Your task to perform on an android device: Empty the shopping cart on bestbuy.com. Search for "razer deathadder" on bestbuy.com, select the first entry, add it to the cart, then select checkout. Image 0: 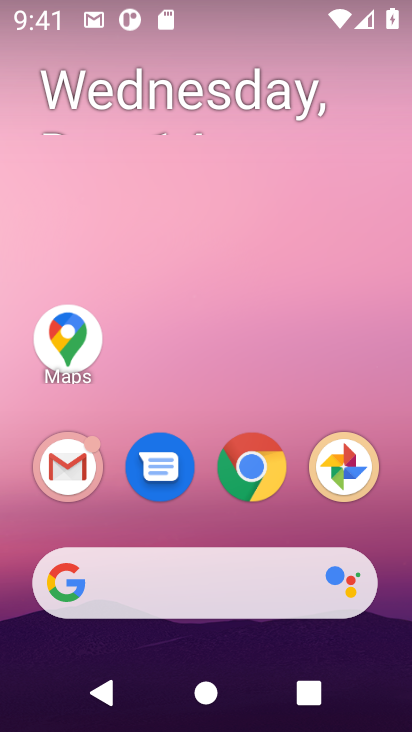
Step 0: click (191, 566)
Your task to perform on an android device: Empty the shopping cart on bestbuy.com. Search for "razer deathadder" on bestbuy.com, select the first entry, add it to the cart, then select checkout. Image 1: 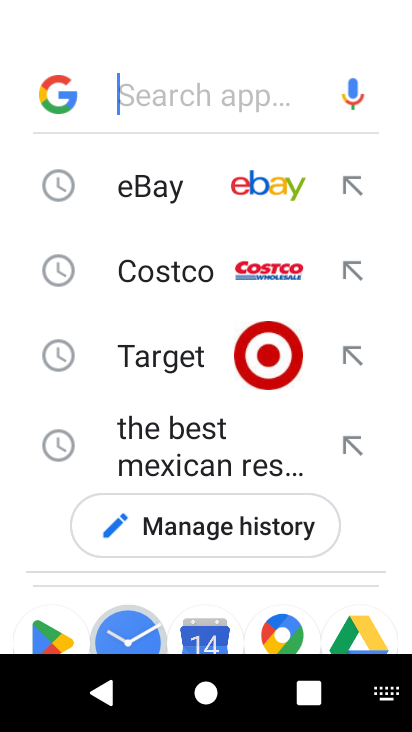
Step 1: type "bestbuy"
Your task to perform on an android device: Empty the shopping cart on bestbuy.com. Search for "razer deathadder" on bestbuy.com, select the first entry, add it to the cart, then select checkout. Image 2: 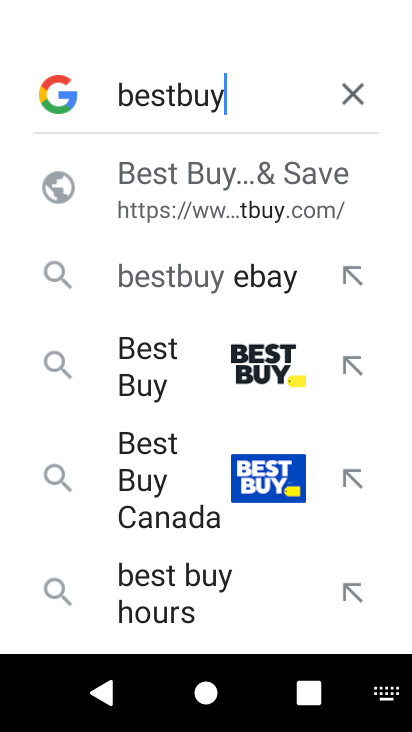
Step 2: click (144, 204)
Your task to perform on an android device: Empty the shopping cart on bestbuy.com. Search for "razer deathadder" on bestbuy.com, select the first entry, add it to the cart, then select checkout. Image 3: 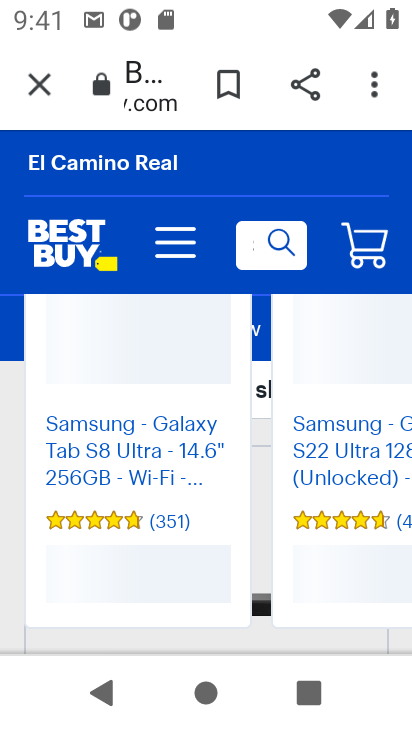
Step 3: click (254, 246)
Your task to perform on an android device: Empty the shopping cart on bestbuy.com. Search for "razer deathadder" on bestbuy.com, select the first entry, add it to the cart, then select checkout. Image 4: 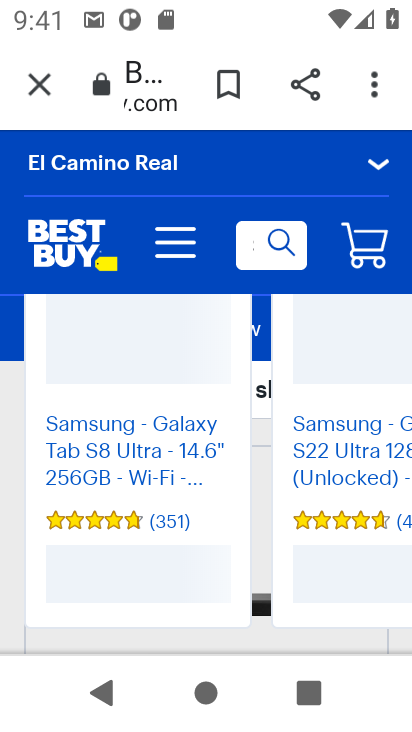
Step 4: type "razer deathadder"
Your task to perform on an android device: Empty the shopping cart on bestbuy.com. Search for "razer deathadder" on bestbuy.com, select the first entry, add it to the cart, then select checkout. Image 5: 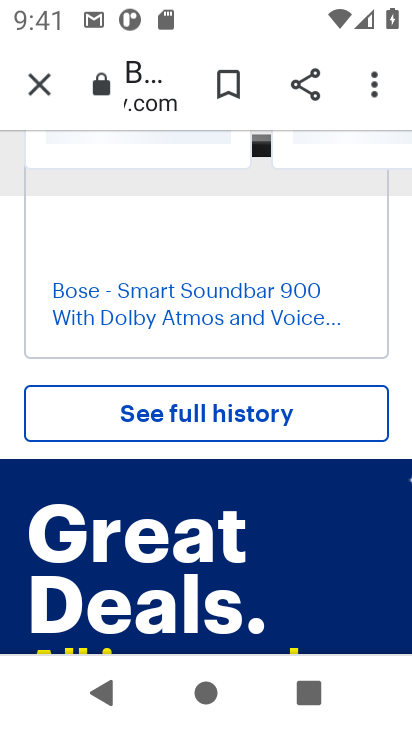
Step 5: task complete